Your task to perform on an android device: find snoozed emails in the gmail app Image 0: 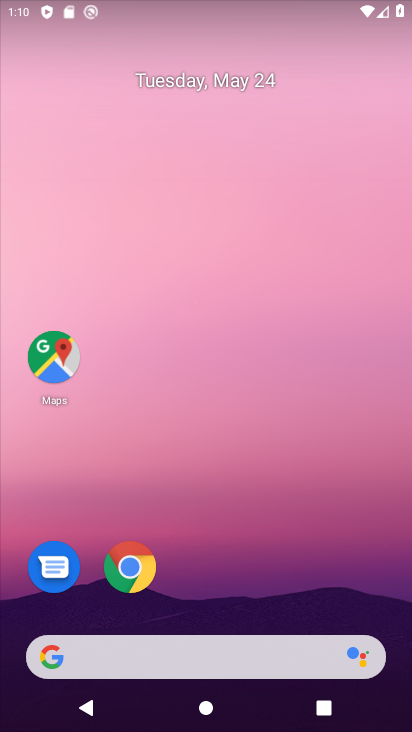
Step 0: drag from (160, 636) to (269, 121)
Your task to perform on an android device: find snoozed emails in the gmail app Image 1: 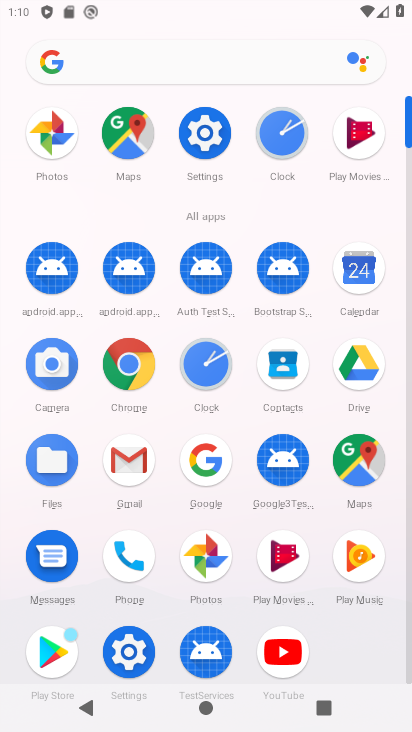
Step 1: click (136, 452)
Your task to perform on an android device: find snoozed emails in the gmail app Image 2: 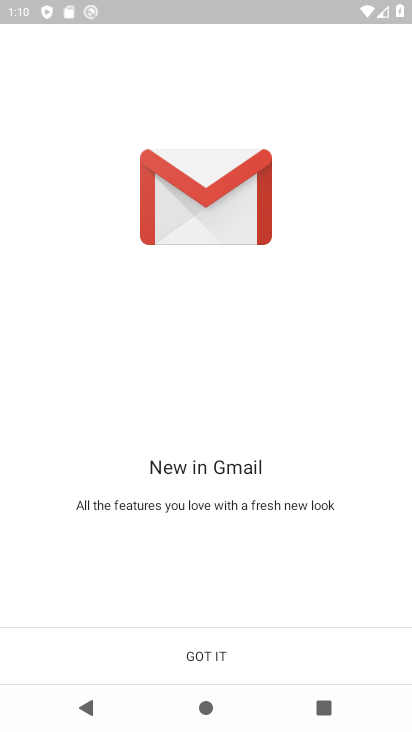
Step 2: click (236, 662)
Your task to perform on an android device: find snoozed emails in the gmail app Image 3: 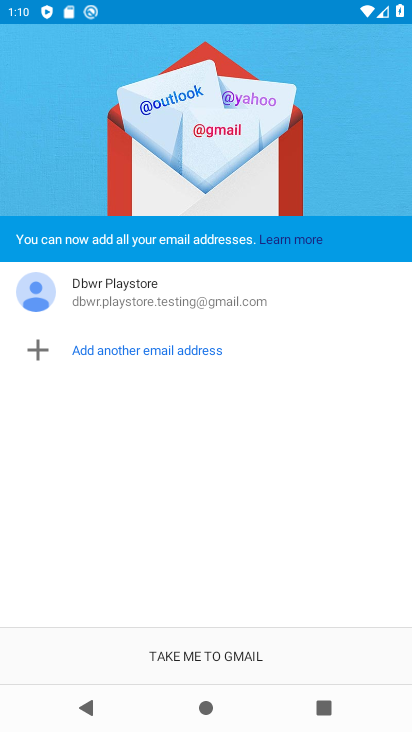
Step 3: click (236, 662)
Your task to perform on an android device: find snoozed emails in the gmail app Image 4: 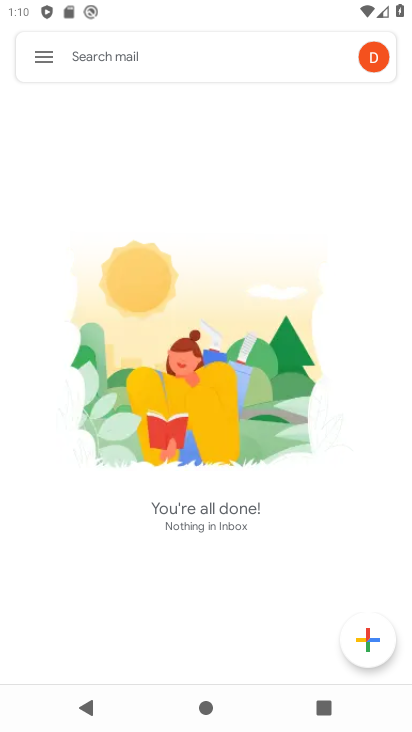
Step 4: click (51, 50)
Your task to perform on an android device: find snoozed emails in the gmail app Image 5: 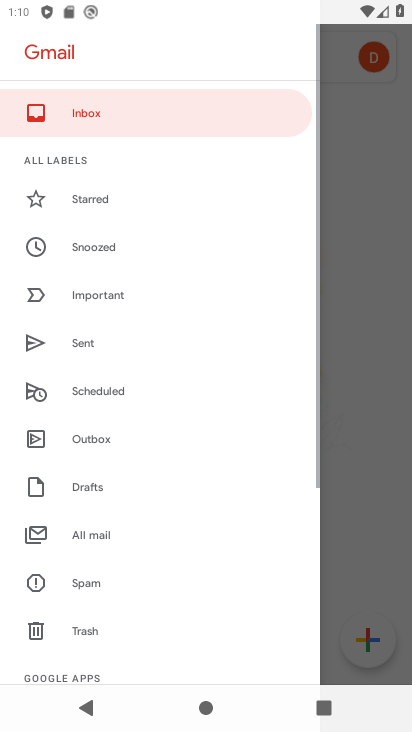
Step 5: click (122, 252)
Your task to perform on an android device: find snoozed emails in the gmail app Image 6: 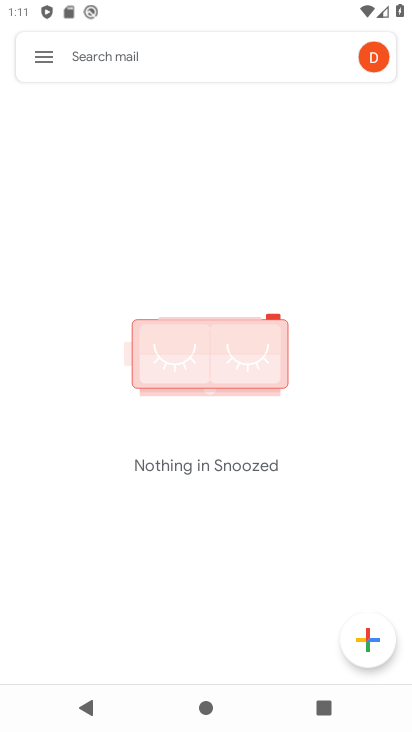
Step 6: task complete